Your task to perform on an android device: Go to Android settings Image 0: 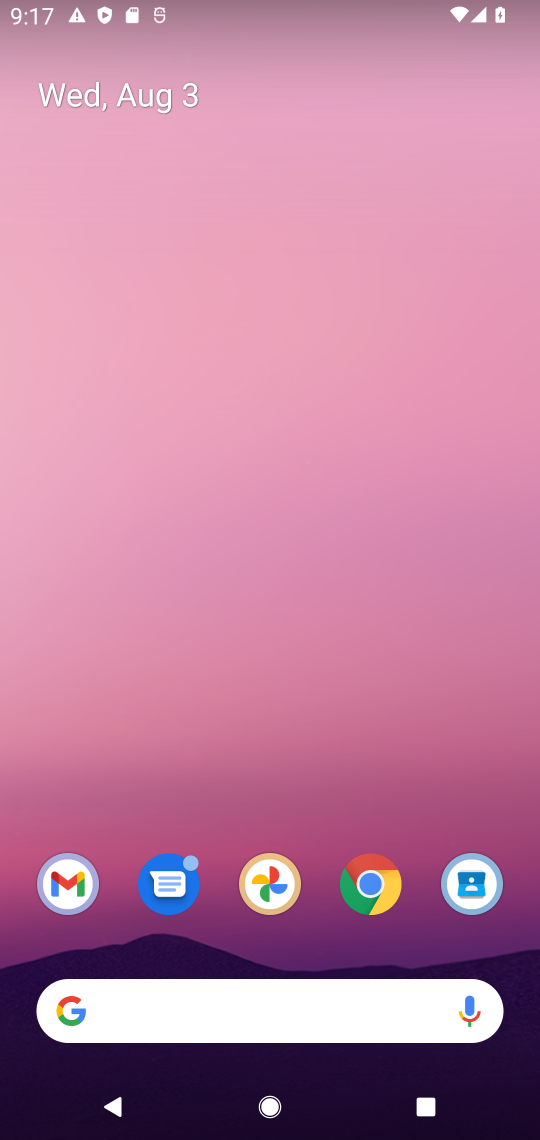
Step 0: press home button
Your task to perform on an android device: Go to Android settings Image 1: 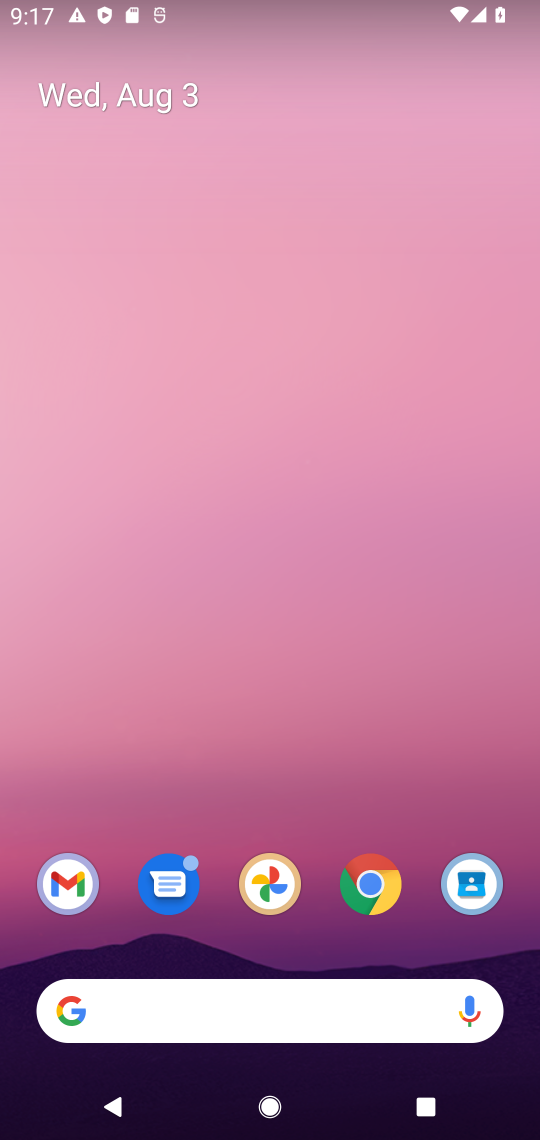
Step 1: drag from (347, 921) to (381, 176)
Your task to perform on an android device: Go to Android settings Image 2: 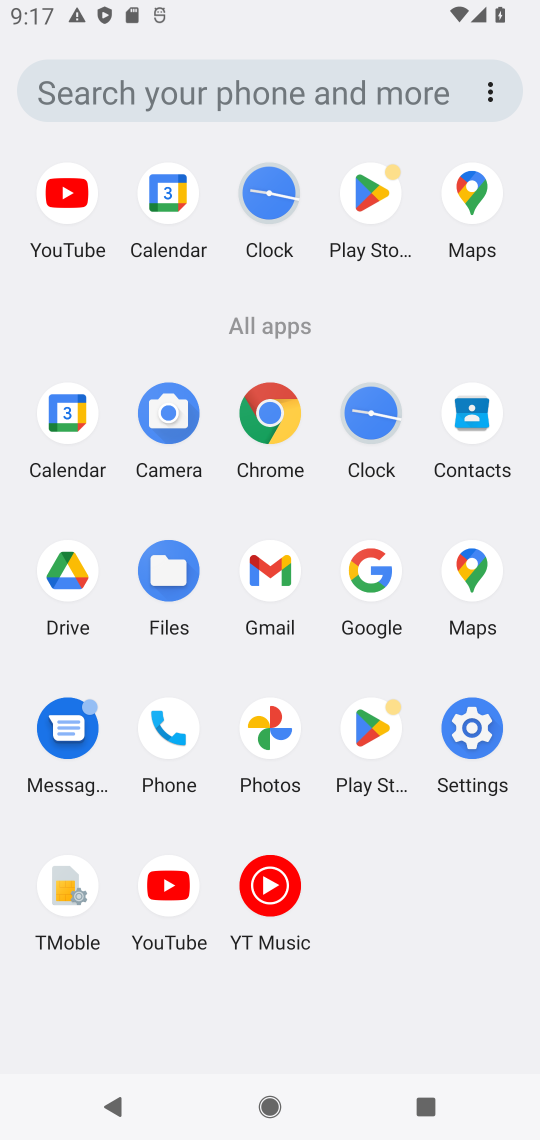
Step 2: click (468, 744)
Your task to perform on an android device: Go to Android settings Image 3: 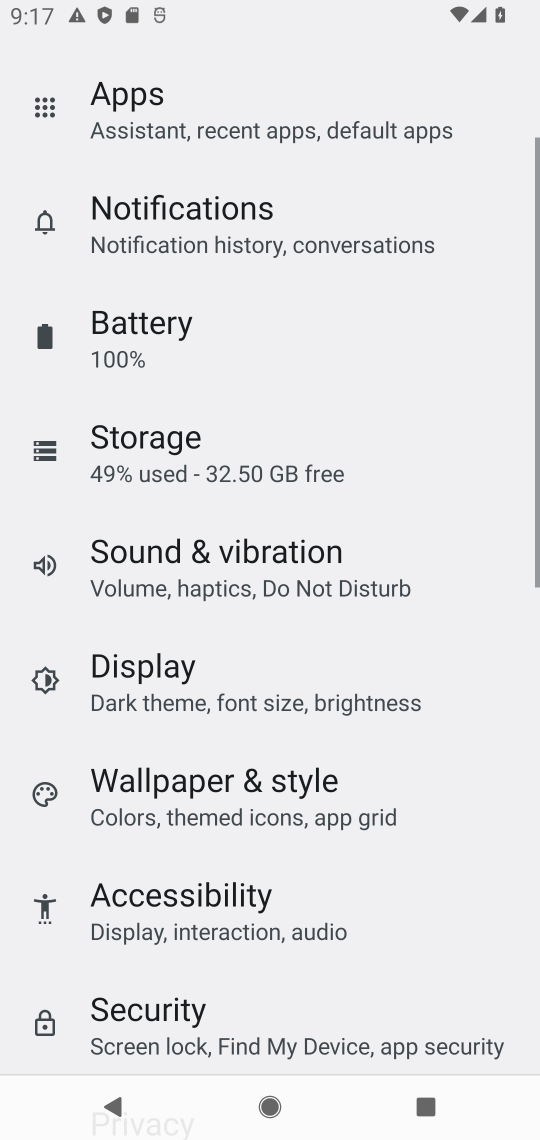
Step 3: drag from (273, 885) to (283, 231)
Your task to perform on an android device: Go to Android settings Image 4: 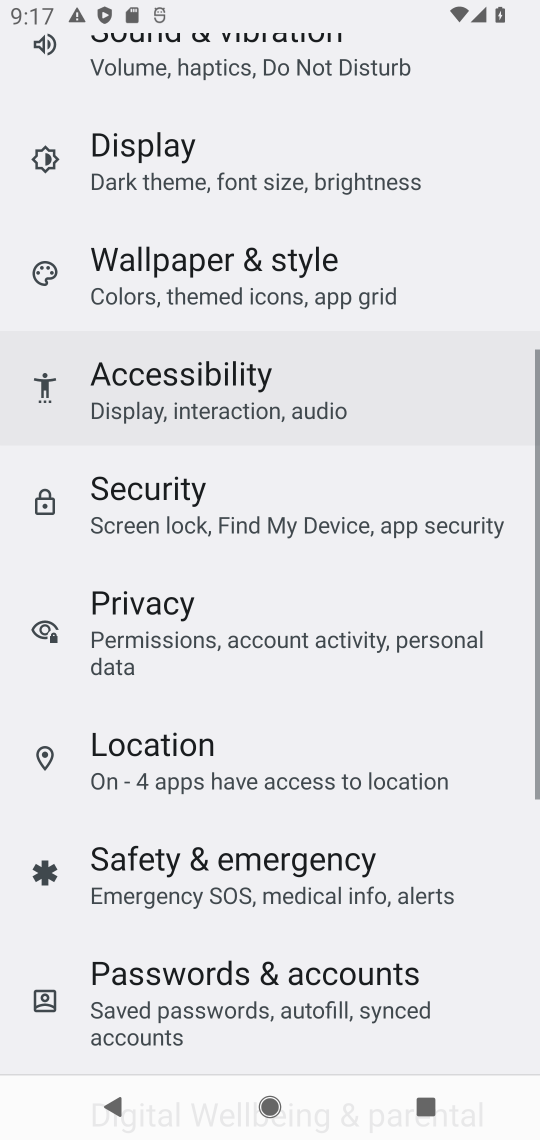
Step 4: drag from (136, 887) to (134, 286)
Your task to perform on an android device: Go to Android settings Image 5: 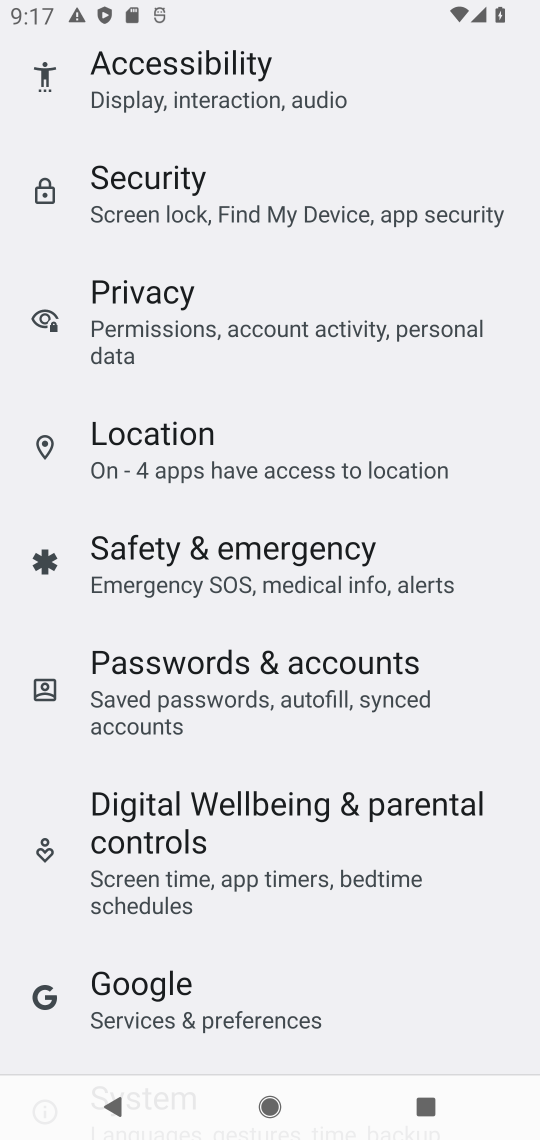
Step 5: drag from (246, 802) to (202, 189)
Your task to perform on an android device: Go to Android settings Image 6: 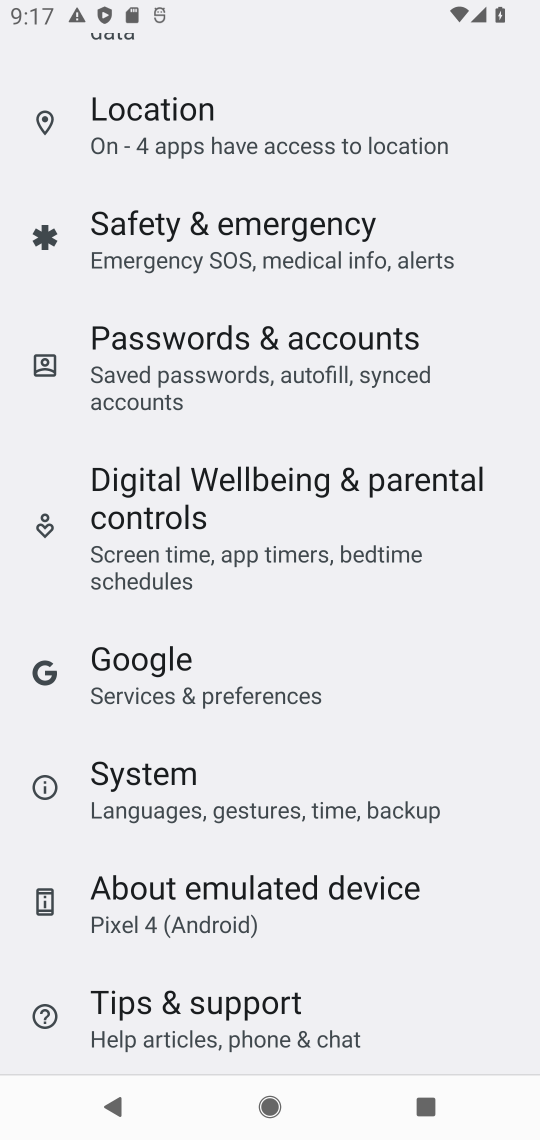
Step 6: drag from (225, 187) to (294, 125)
Your task to perform on an android device: Go to Android settings Image 7: 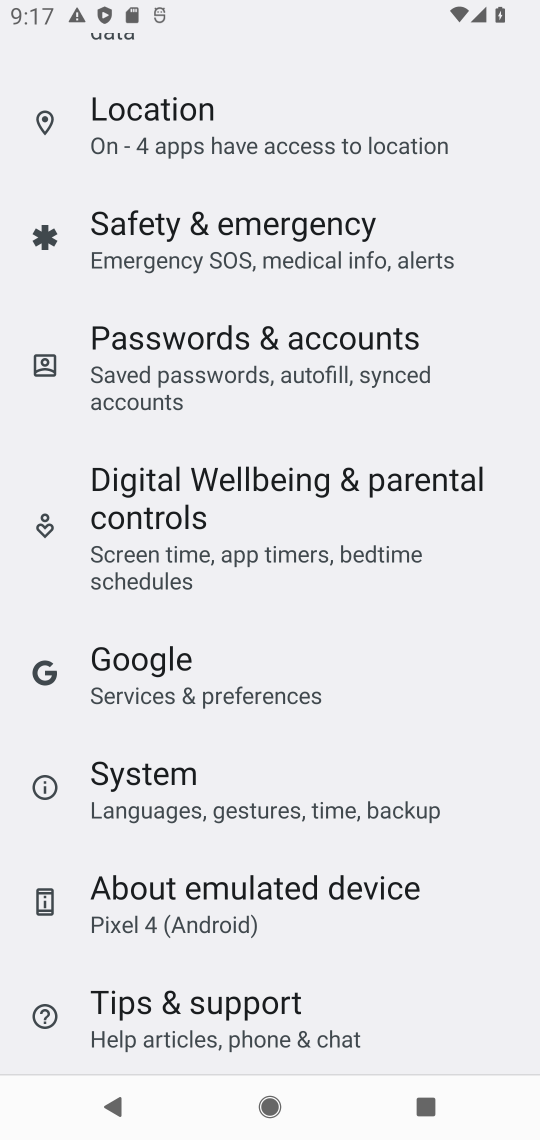
Step 7: click (326, 917)
Your task to perform on an android device: Go to Android settings Image 8: 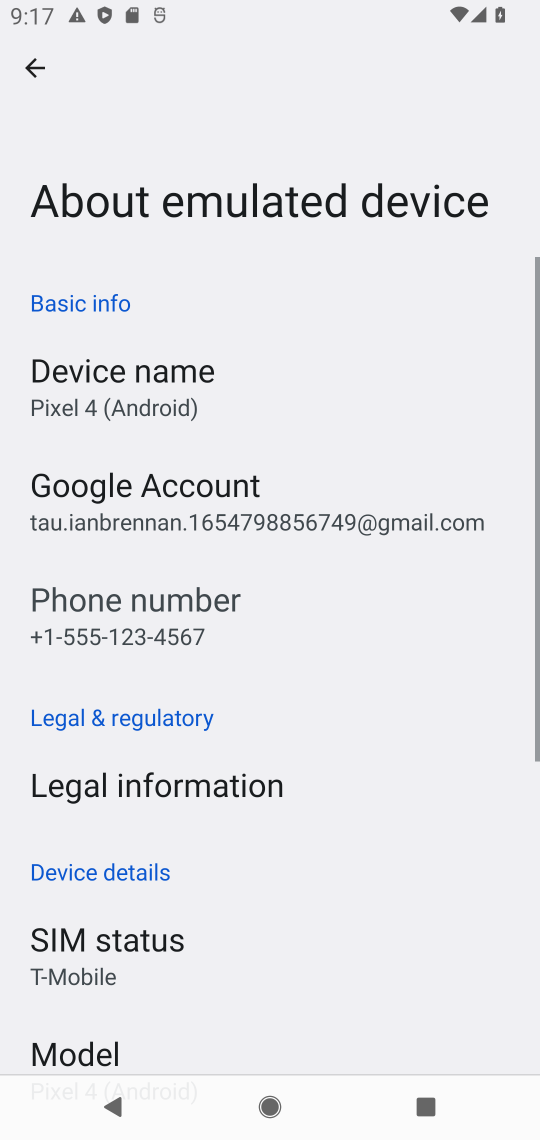
Step 8: drag from (223, 875) to (172, 228)
Your task to perform on an android device: Go to Android settings Image 9: 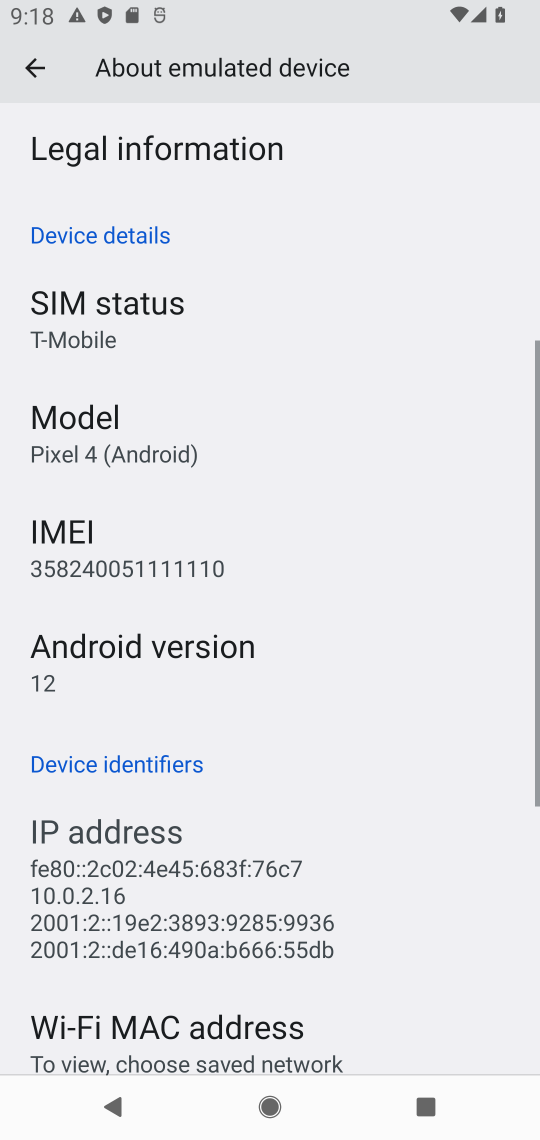
Step 9: click (137, 649)
Your task to perform on an android device: Go to Android settings Image 10: 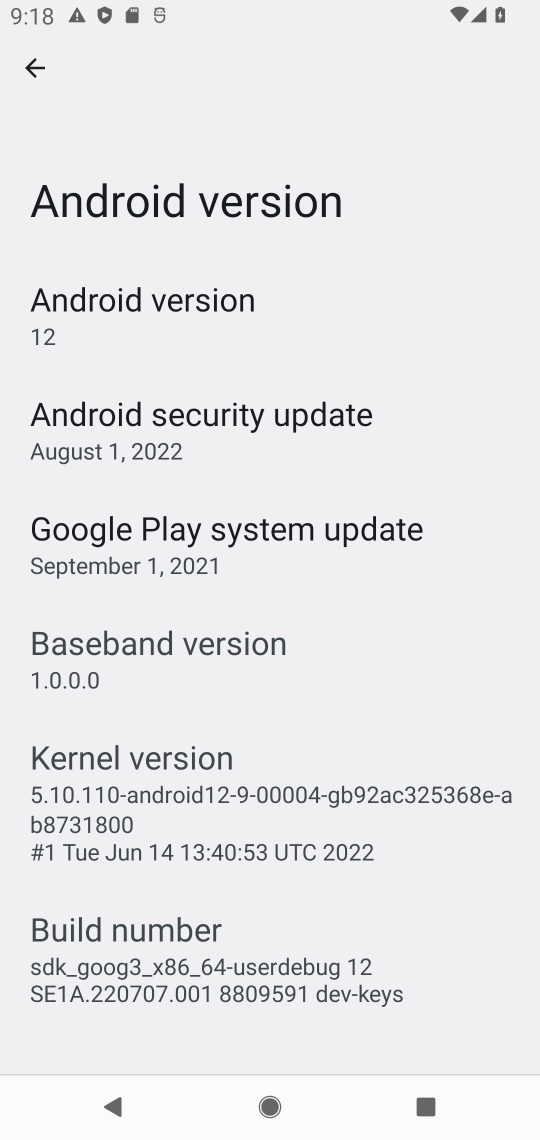
Step 10: task complete